Your task to perform on an android device: Show the shopping cart on ebay.com. Search for "logitech g903" on ebay.com, select the first entry, add it to the cart, then select checkout. Image 0: 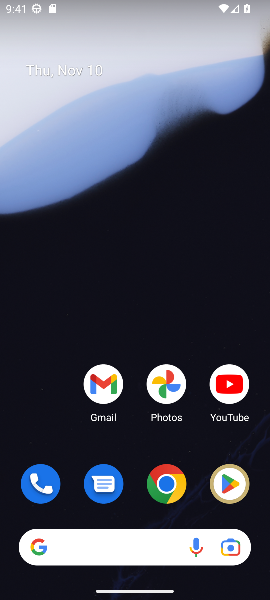
Step 0: click (163, 485)
Your task to perform on an android device: Show the shopping cart on ebay.com. Search for "logitech g903" on ebay.com, select the first entry, add it to the cart, then select checkout. Image 1: 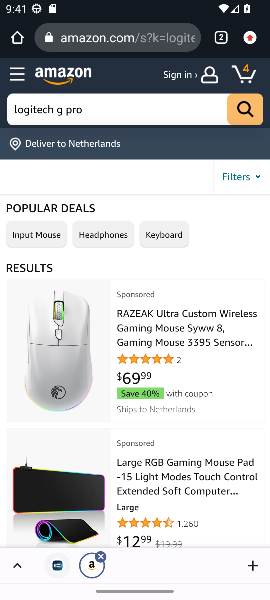
Step 1: click (95, 37)
Your task to perform on an android device: Show the shopping cart on ebay.com. Search for "logitech g903" on ebay.com, select the first entry, add it to the cart, then select checkout. Image 2: 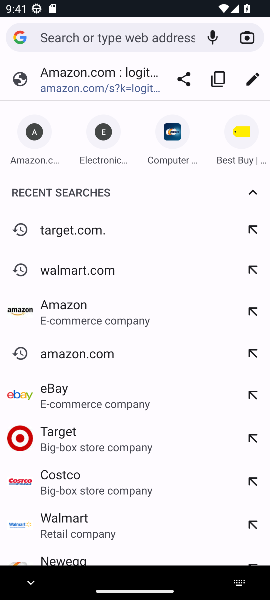
Step 2: type "ebay.com"
Your task to perform on an android device: Show the shopping cart on ebay.com. Search for "logitech g903" on ebay.com, select the first entry, add it to the cart, then select checkout. Image 3: 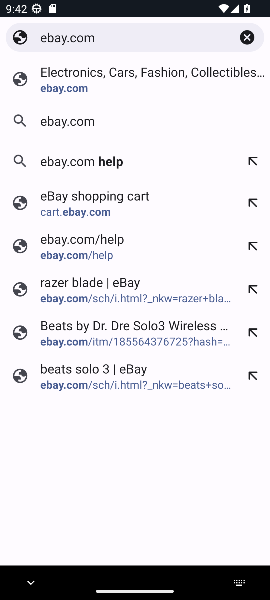
Step 3: click (65, 87)
Your task to perform on an android device: Show the shopping cart on ebay.com. Search for "logitech g903" on ebay.com, select the first entry, add it to the cart, then select checkout. Image 4: 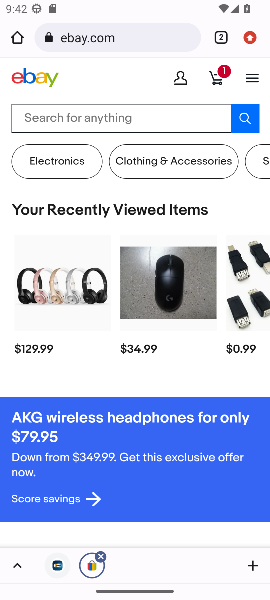
Step 4: click (222, 75)
Your task to perform on an android device: Show the shopping cart on ebay.com. Search for "logitech g903" on ebay.com, select the first entry, add it to the cart, then select checkout. Image 5: 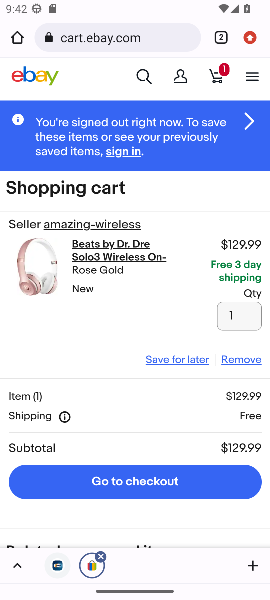
Step 5: click (139, 74)
Your task to perform on an android device: Show the shopping cart on ebay.com. Search for "logitech g903" on ebay.com, select the first entry, add it to the cart, then select checkout. Image 6: 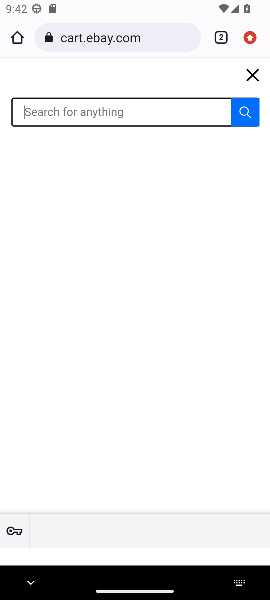
Step 6: type "logitech g903"
Your task to perform on an android device: Show the shopping cart on ebay.com. Search for "logitech g903" on ebay.com, select the first entry, add it to the cart, then select checkout. Image 7: 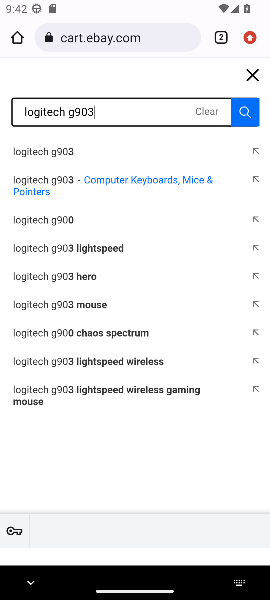
Step 7: click (46, 150)
Your task to perform on an android device: Show the shopping cart on ebay.com. Search for "logitech g903" on ebay.com, select the first entry, add it to the cart, then select checkout. Image 8: 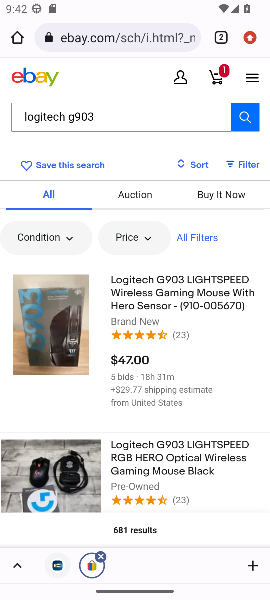
Step 8: click (56, 338)
Your task to perform on an android device: Show the shopping cart on ebay.com. Search for "logitech g903" on ebay.com, select the first entry, add it to the cart, then select checkout. Image 9: 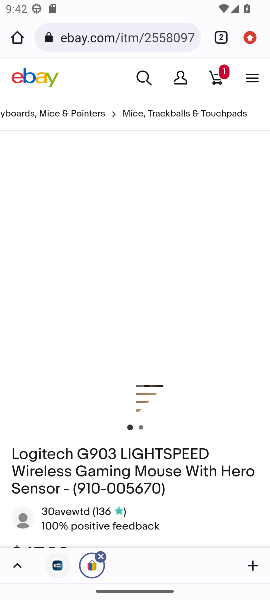
Step 9: task complete